Your task to perform on an android device: turn smart compose on in the gmail app Image 0: 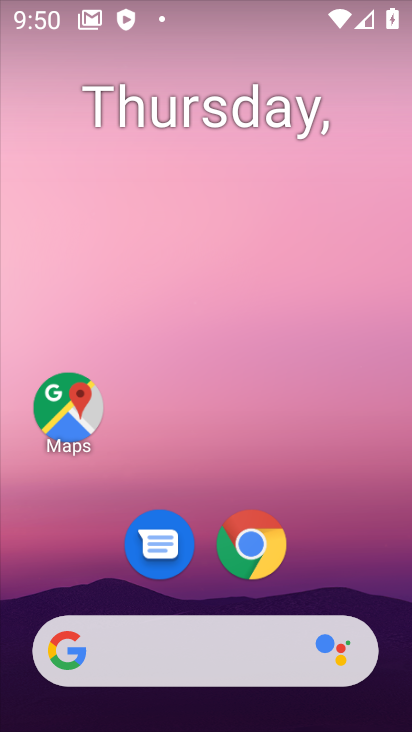
Step 0: drag from (210, 598) to (252, 0)
Your task to perform on an android device: turn smart compose on in the gmail app Image 1: 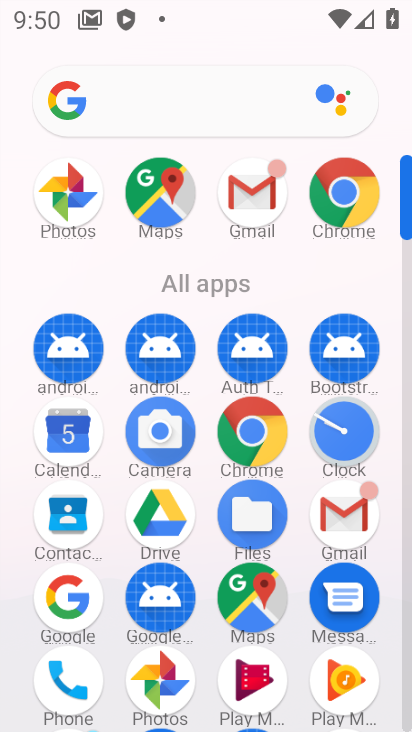
Step 1: click (344, 510)
Your task to perform on an android device: turn smart compose on in the gmail app Image 2: 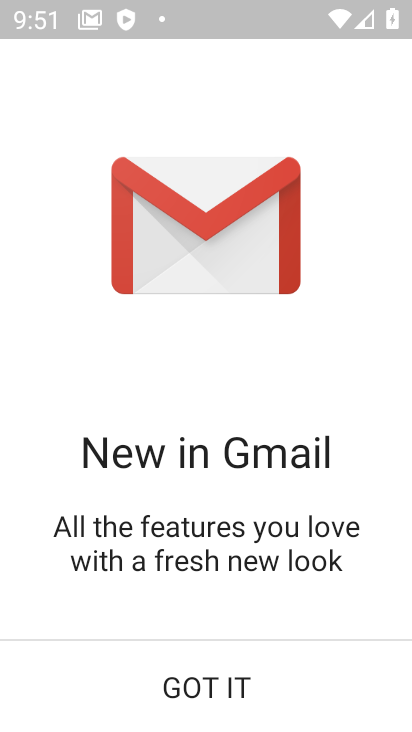
Step 2: click (219, 701)
Your task to perform on an android device: turn smart compose on in the gmail app Image 3: 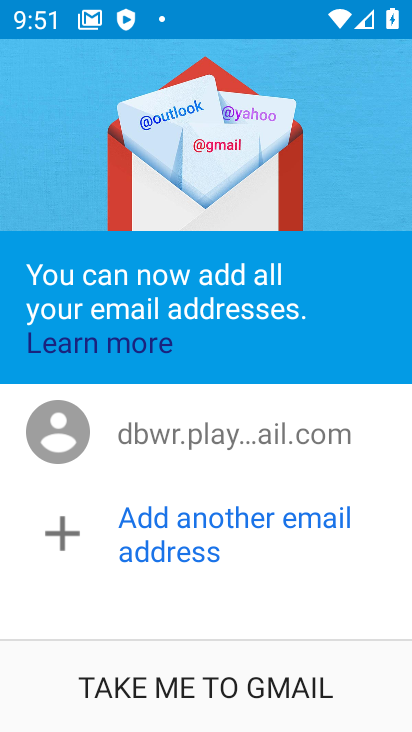
Step 3: click (197, 701)
Your task to perform on an android device: turn smart compose on in the gmail app Image 4: 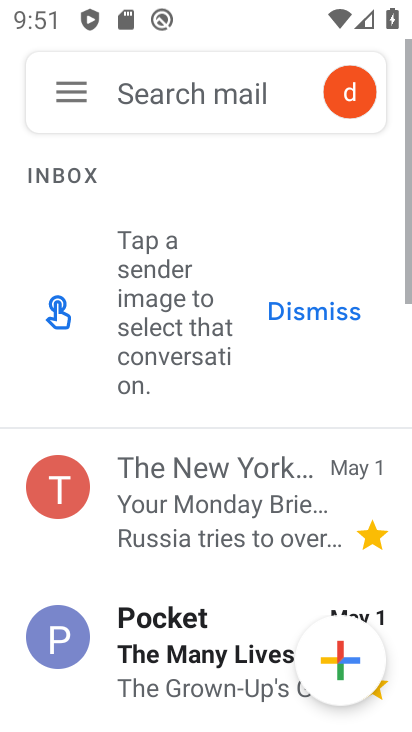
Step 4: click (67, 87)
Your task to perform on an android device: turn smart compose on in the gmail app Image 5: 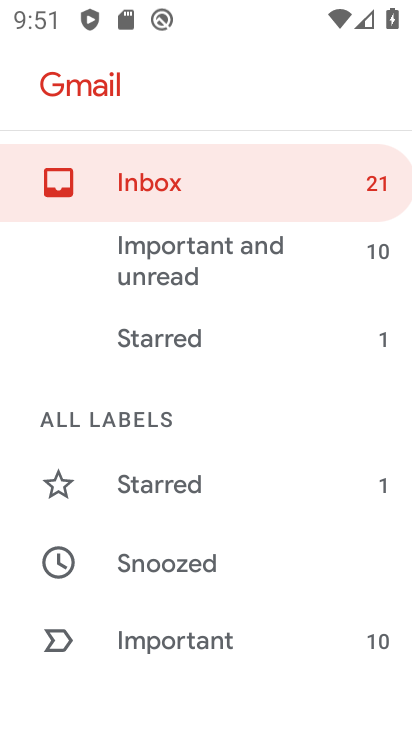
Step 5: drag from (238, 640) to (232, 149)
Your task to perform on an android device: turn smart compose on in the gmail app Image 6: 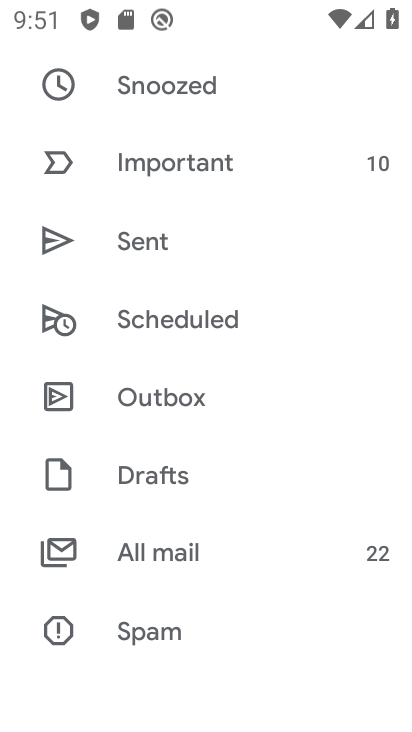
Step 6: drag from (223, 618) to (249, 91)
Your task to perform on an android device: turn smart compose on in the gmail app Image 7: 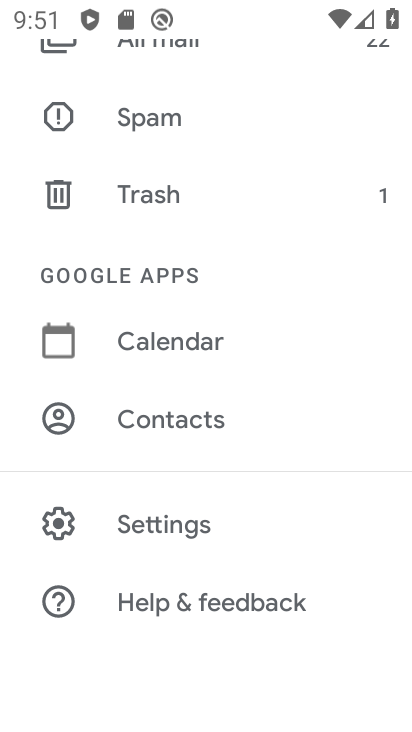
Step 7: click (216, 521)
Your task to perform on an android device: turn smart compose on in the gmail app Image 8: 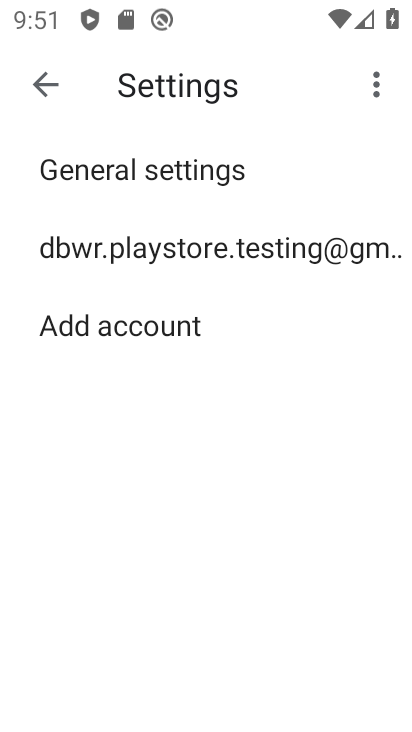
Step 8: click (231, 248)
Your task to perform on an android device: turn smart compose on in the gmail app Image 9: 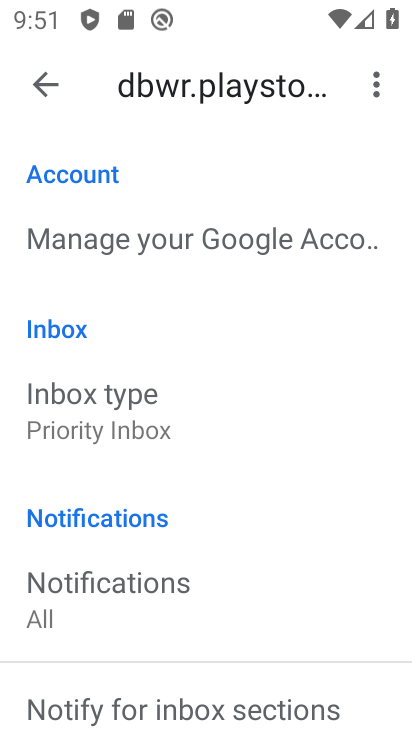
Step 9: task complete